Your task to perform on an android device: check data usage Image 0: 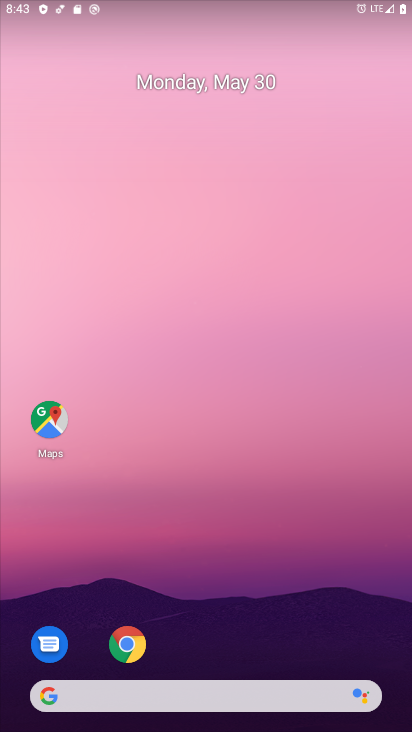
Step 0: drag from (384, 660) to (291, 0)
Your task to perform on an android device: check data usage Image 1: 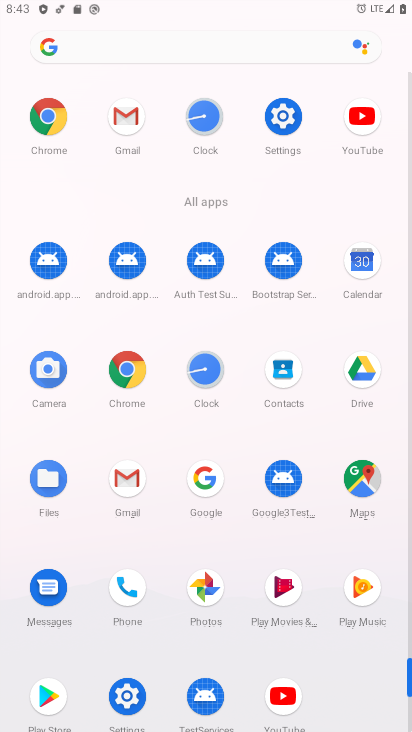
Step 1: click (128, 694)
Your task to perform on an android device: check data usage Image 2: 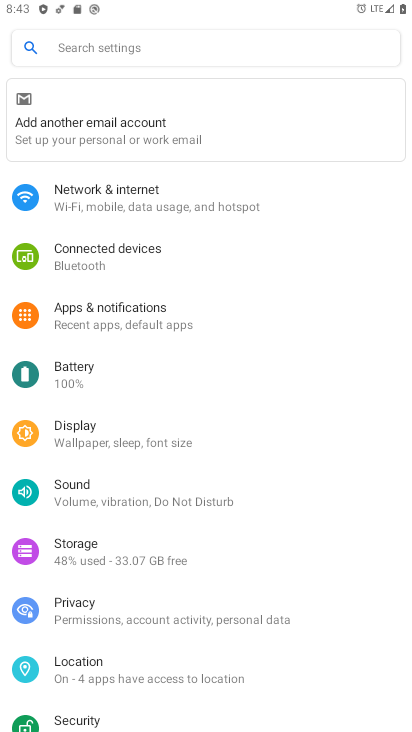
Step 2: click (93, 201)
Your task to perform on an android device: check data usage Image 3: 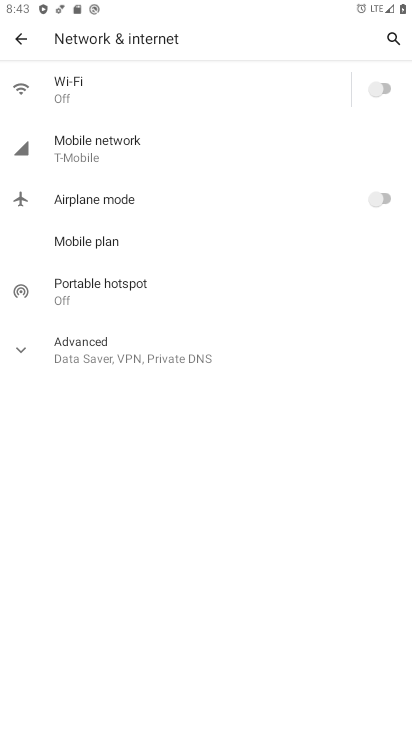
Step 3: click (111, 146)
Your task to perform on an android device: check data usage Image 4: 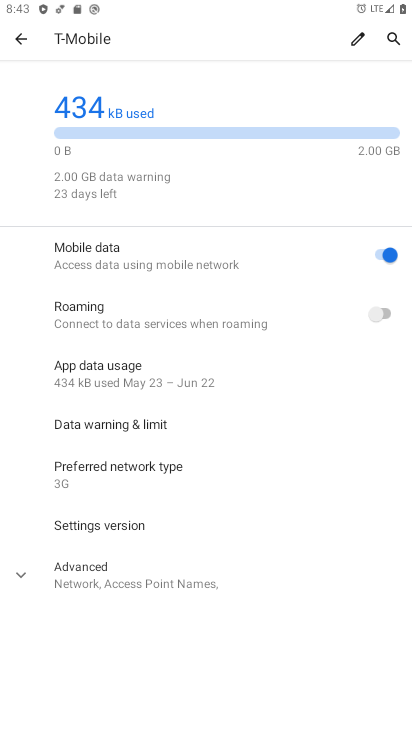
Step 4: click (19, 571)
Your task to perform on an android device: check data usage Image 5: 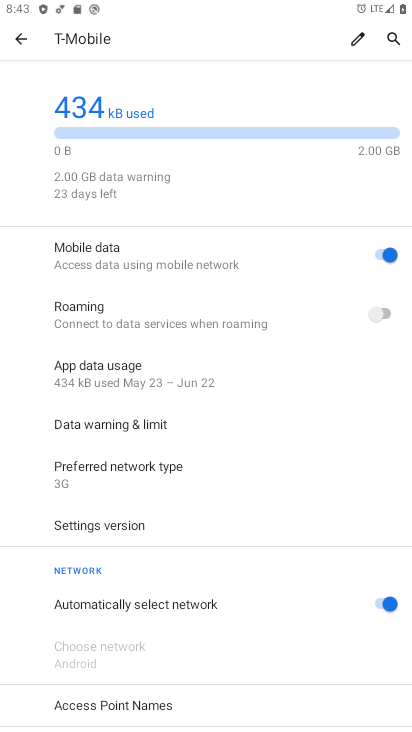
Step 5: task complete